Your task to perform on an android device: toggle data saver in the chrome app Image 0: 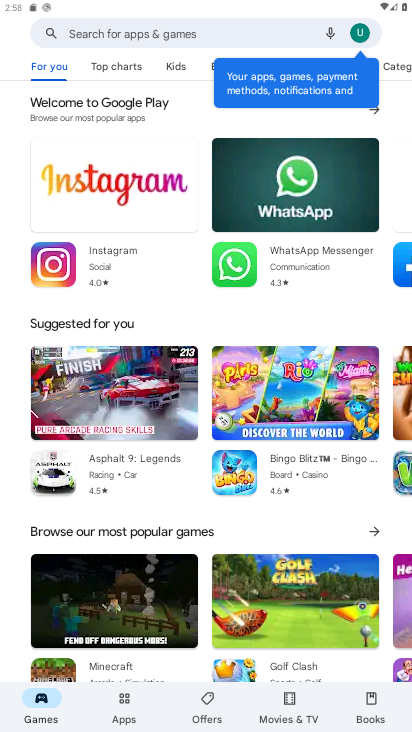
Step 0: press home button
Your task to perform on an android device: toggle data saver in the chrome app Image 1: 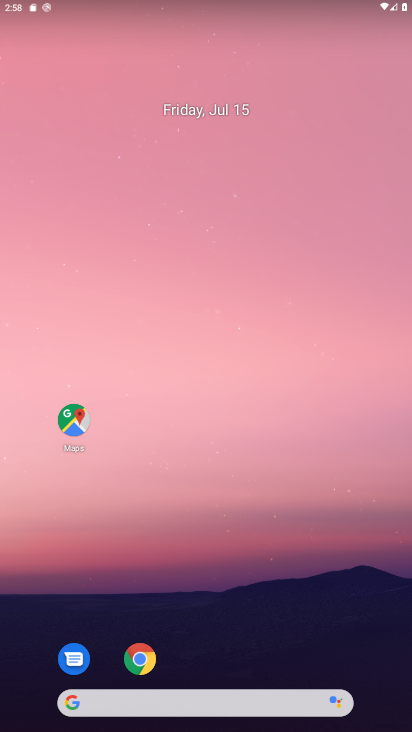
Step 1: click (149, 661)
Your task to perform on an android device: toggle data saver in the chrome app Image 2: 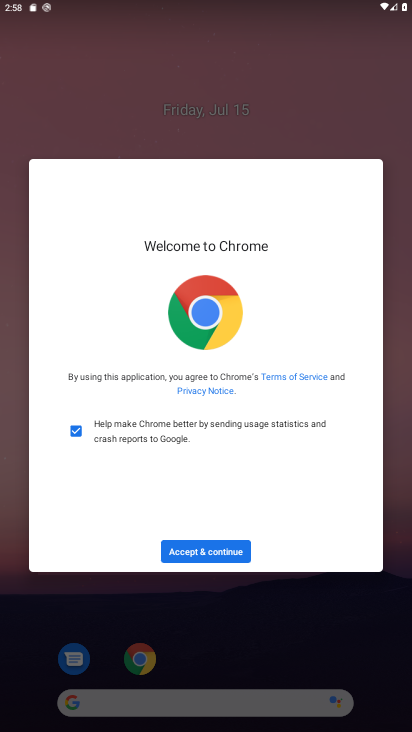
Step 2: click (211, 555)
Your task to perform on an android device: toggle data saver in the chrome app Image 3: 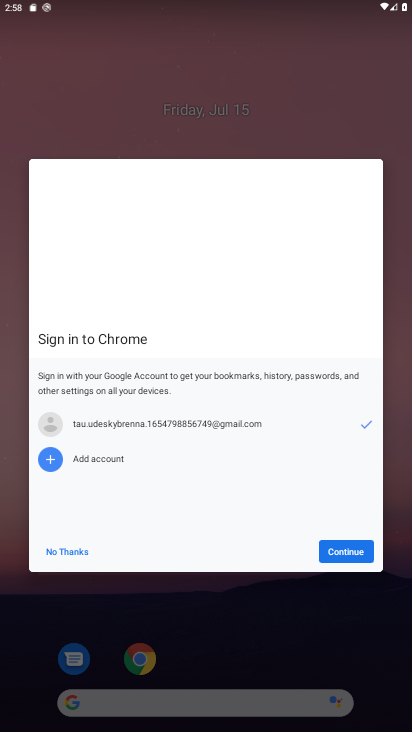
Step 3: click (340, 549)
Your task to perform on an android device: toggle data saver in the chrome app Image 4: 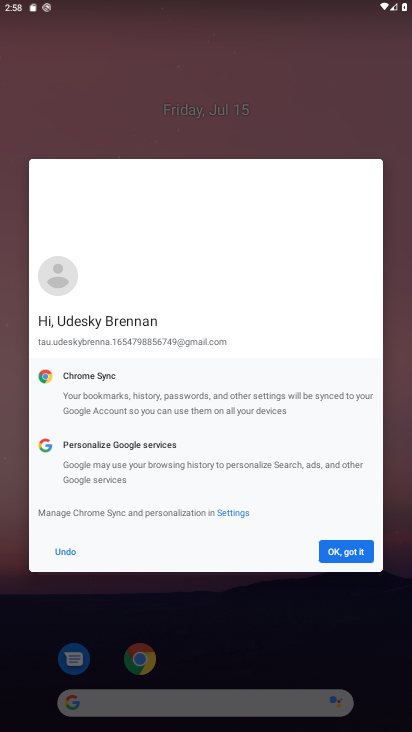
Step 4: click (340, 549)
Your task to perform on an android device: toggle data saver in the chrome app Image 5: 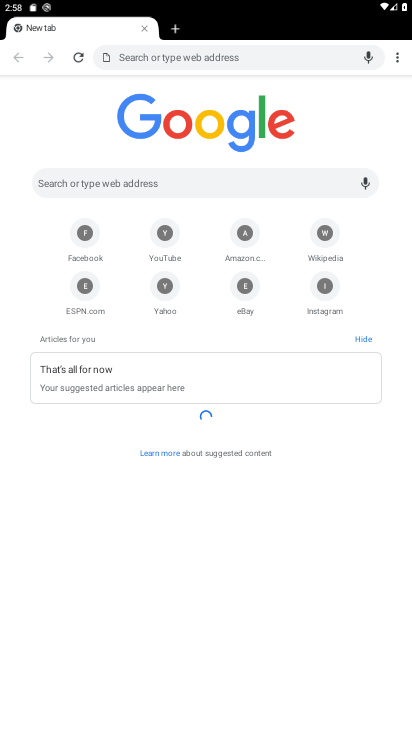
Step 5: click (395, 63)
Your task to perform on an android device: toggle data saver in the chrome app Image 6: 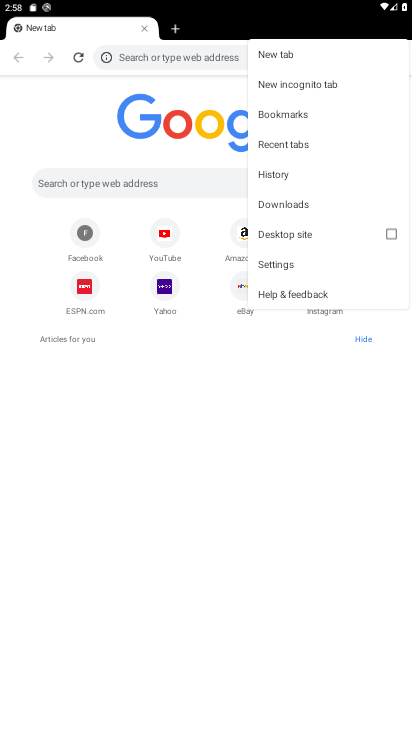
Step 6: click (285, 258)
Your task to perform on an android device: toggle data saver in the chrome app Image 7: 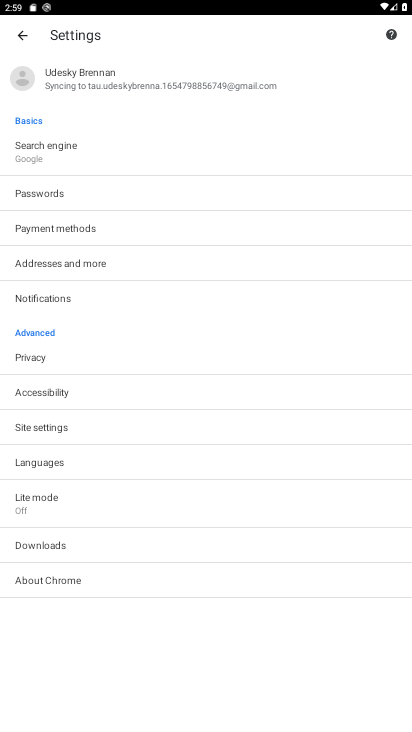
Step 7: click (102, 496)
Your task to perform on an android device: toggle data saver in the chrome app Image 8: 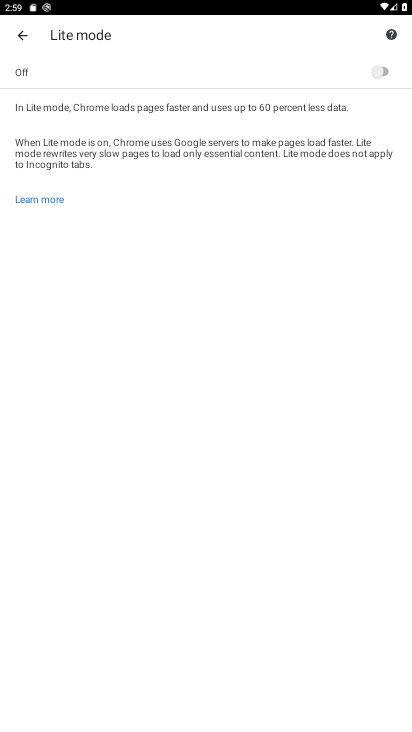
Step 8: click (378, 68)
Your task to perform on an android device: toggle data saver in the chrome app Image 9: 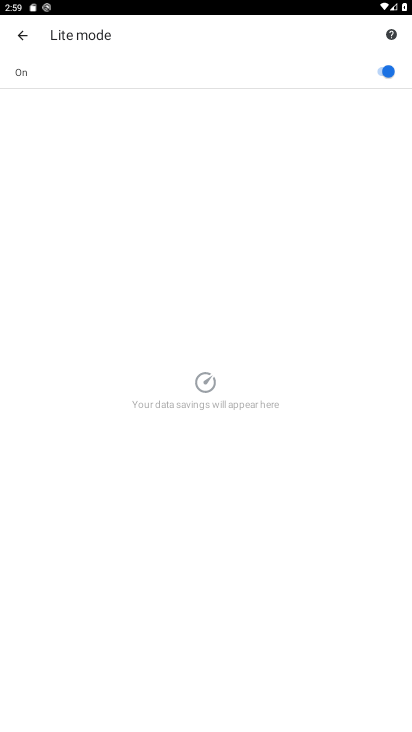
Step 9: task complete